Your task to perform on an android device: Go to eBay Image 0: 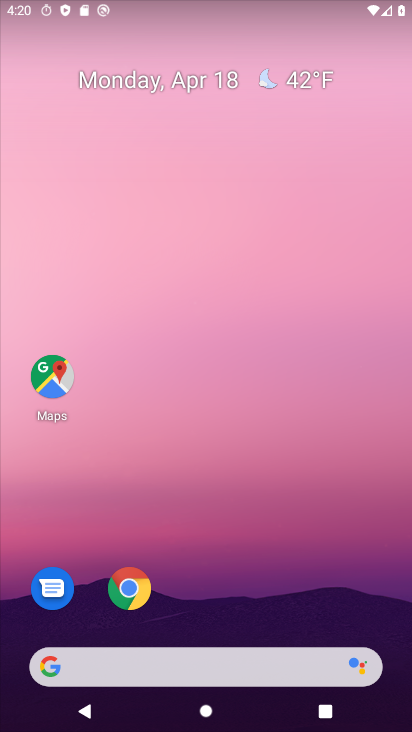
Step 0: click (127, 586)
Your task to perform on an android device: Go to eBay Image 1: 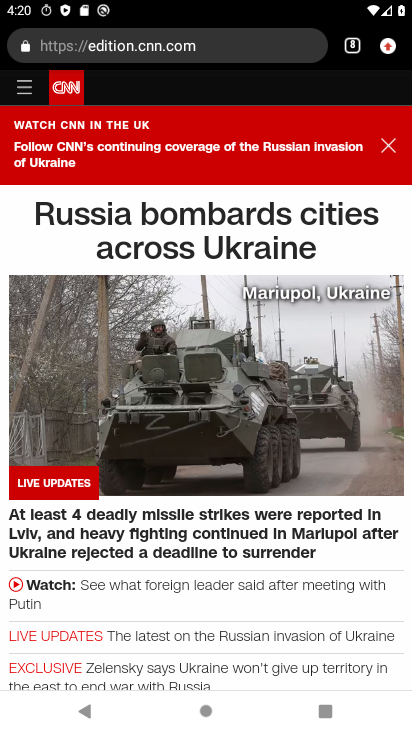
Step 1: click (350, 55)
Your task to perform on an android device: Go to eBay Image 2: 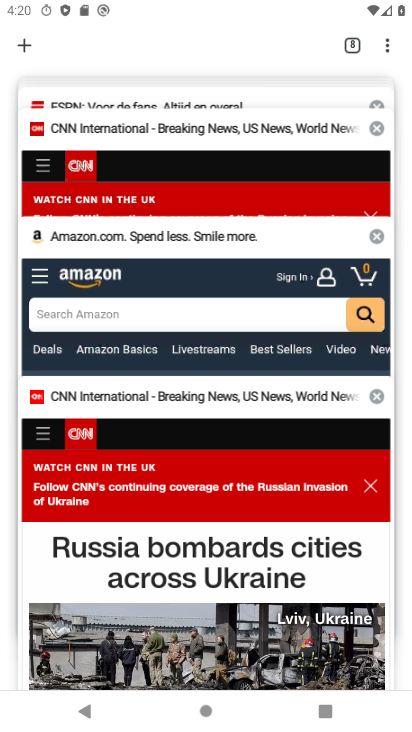
Step 2: click (34, 56)
Your task to perform on an android device: Go to eBay Image 3: 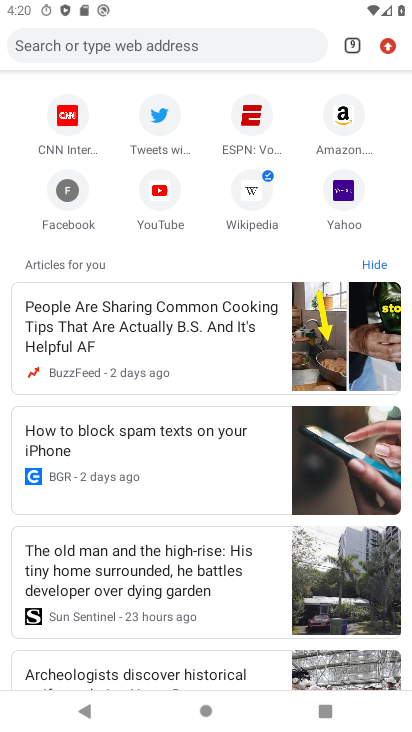
Step 3: click (127, 40)
Your task to perform on an android device: Go to eBay Image 4: 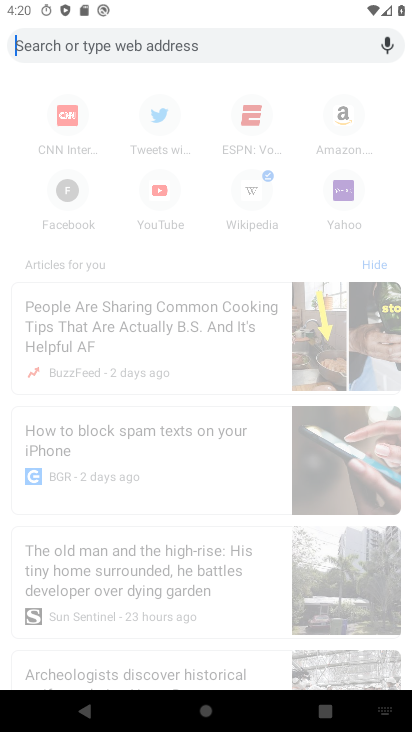
Step 4: type "ebay"
Your task to perform on an android device: Go to eBay Image 5: 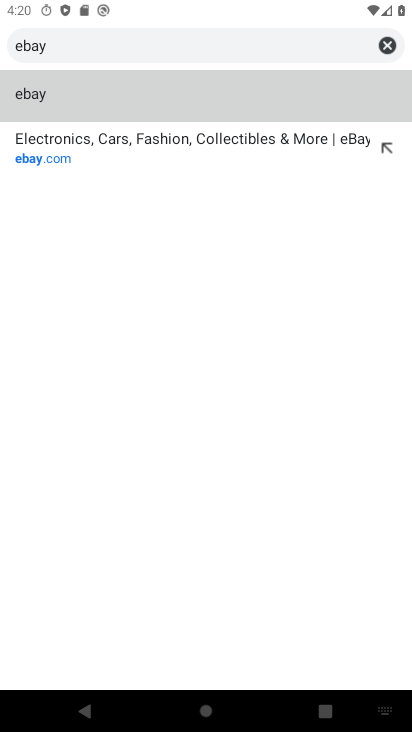
Step 5: click (218, 133)
Your task to perform on an android device: Go to eBay Image 6: 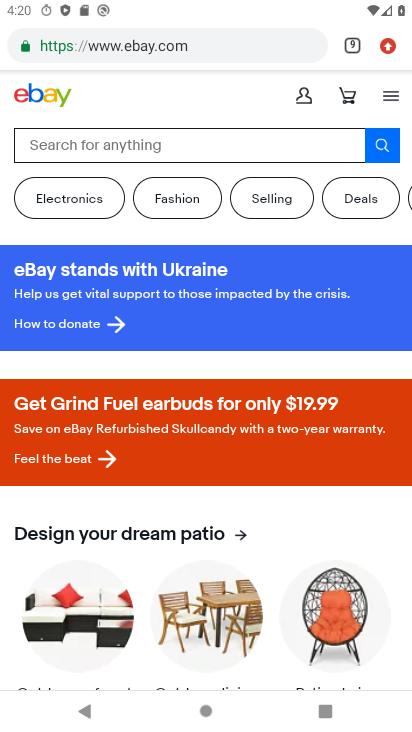
Step 6: task complete